Your task to perform on an android device: toggle show notifications on the lock screen Image 0: 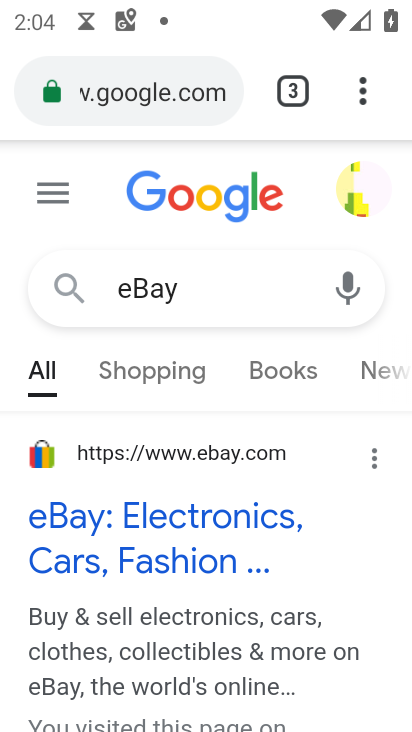
Step 0: press home button
Your task to perform on an android device: toggle show notifications on the lock screen Image 1: 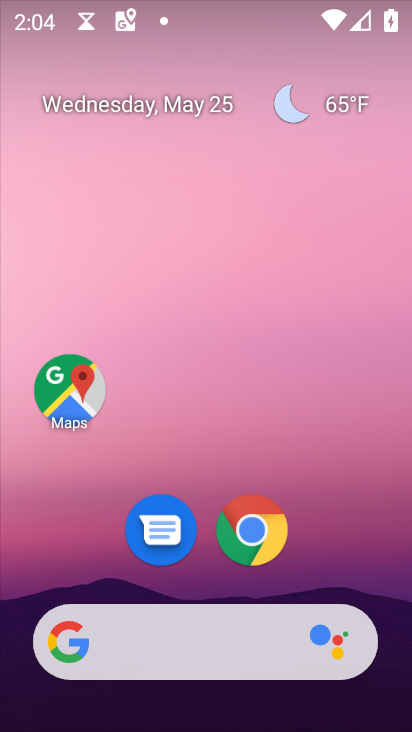
Step 1: drag from (288, 534) to (300, 225)
Your task to perform on an android device: toggle show notifications on the lock screen Image 2: 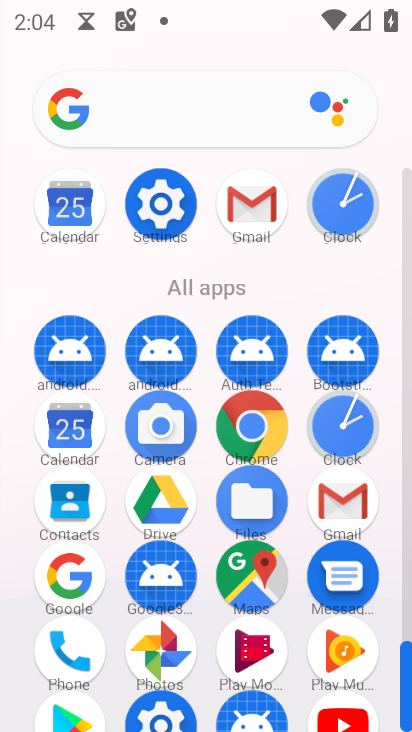
Step 2: click (150, 205)
Your task to perform on an android device: toggle show notifications on the lock screen Image 3: 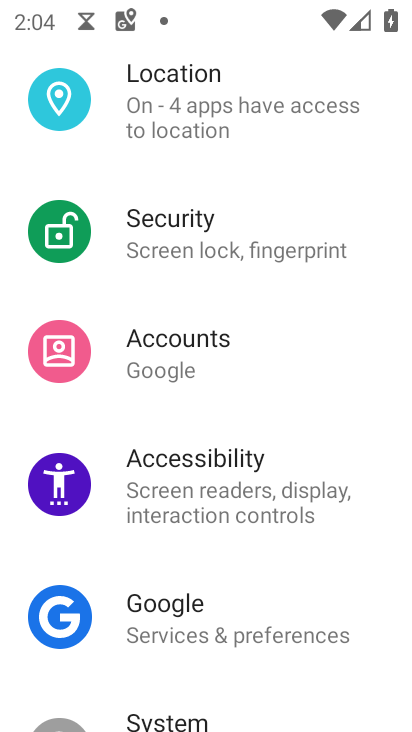
Step 3: drag from (260, 158) to (264, 483)
Your task to perform on an android device: toggle show notifications on the lock screen Image 4: 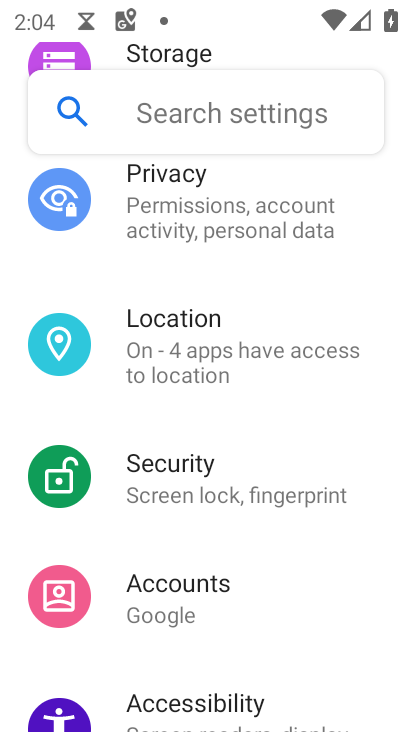
Step 4: drag from (243, 256) to (257, 481)
Your task to perform on an android device: toggle show notifications on the lock screen Image 5: 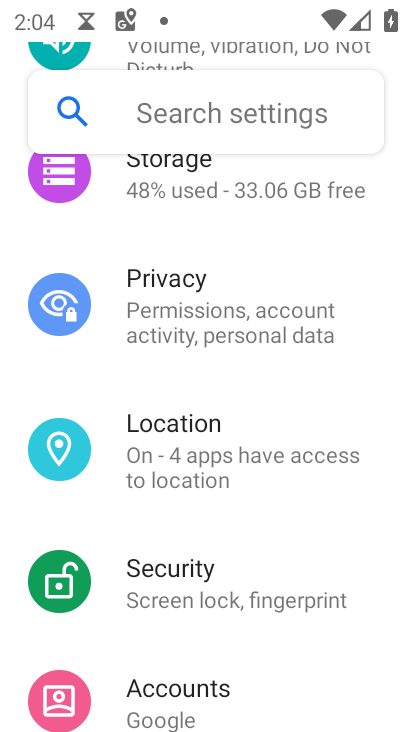
Step 5: click (213, 113)
Your task to perform on an android device: toggle show notifications on the lock screen Image 6: 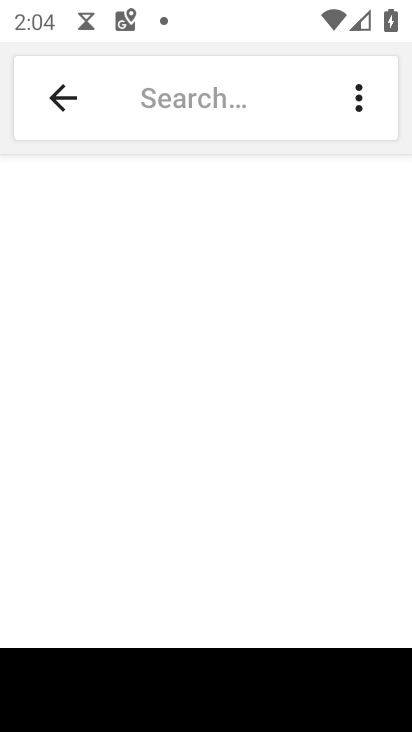
Step 6: drag from (197, 308) to (250, 598)
Your task to perform on an android device: toggle show notifications on the lock screen Image 7: 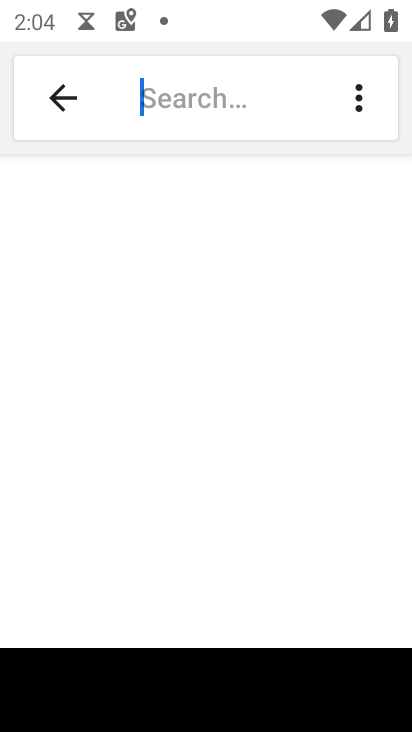
Step 7: drag from (227, 363) to (235, 608)
Your task to perform on an android device: toggle show notifications on the lock screen Image 8: 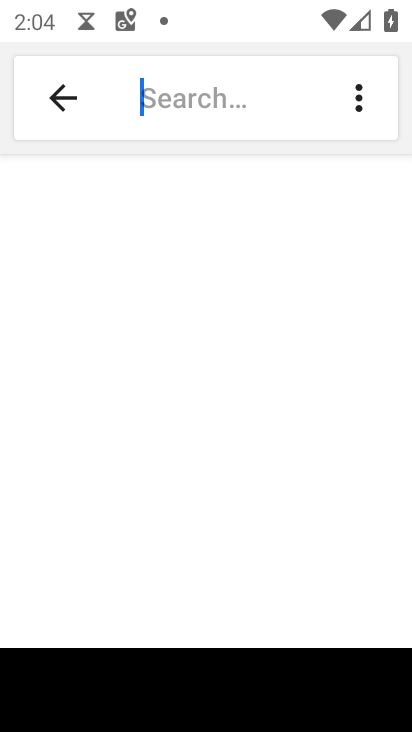
Step 8: drag from (232, 557) to (235, 601)
Your task to perform on an android device: toggle show notifications on the lock screen Image 9: 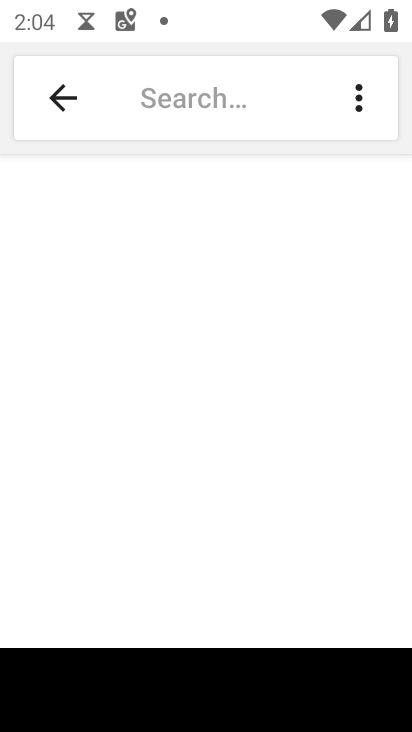
Step 9: drag from (221, 450) to (217, 635)
Your task to perform on an android device: toggle show notifications on the lock screen Image 10: 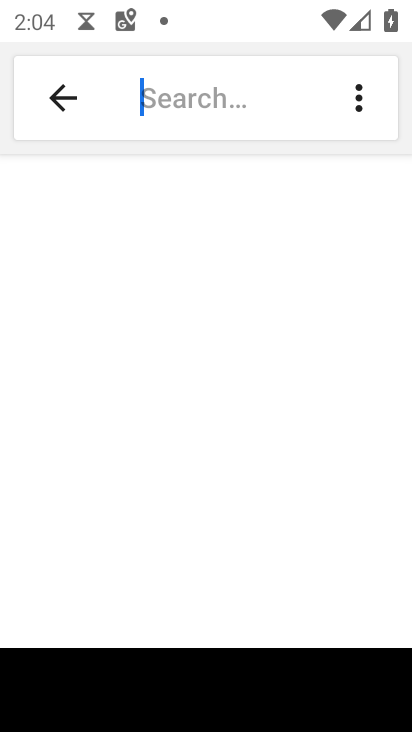
Step 10: click (183, 102)
Your task to perform on an android device: toggle show notifications on the lock screen Image 11: 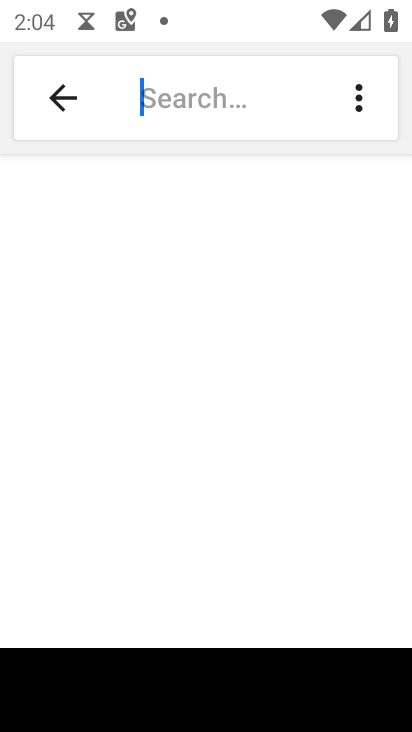
Step 11: type "notification"
Your task to perform on an android device: toggle show notifications on the lock screen Image 12: 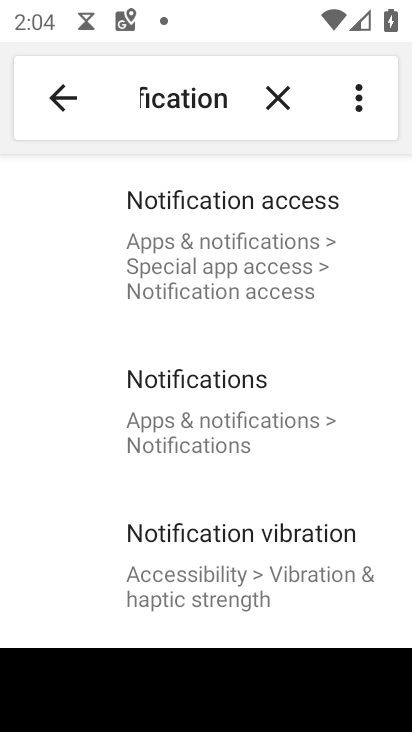
Step 12: click (187, 226)
Your task to perform on an android device: toggle show notifications on the lock screen Image 13: 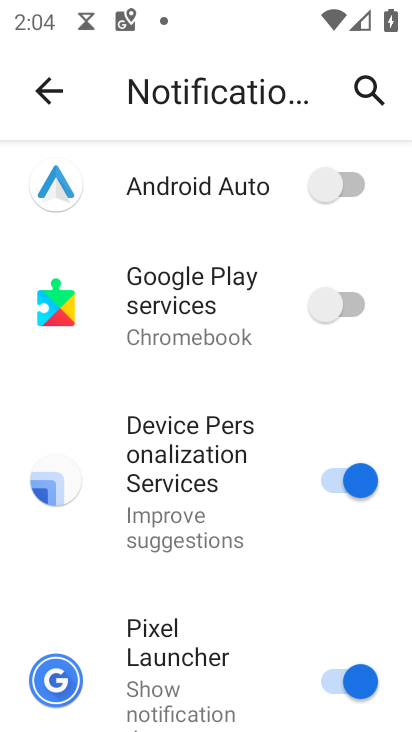
Step 13: click (66, 96)
Your task to perform on an android device: toggle show notifications on the lock screen Image 14: 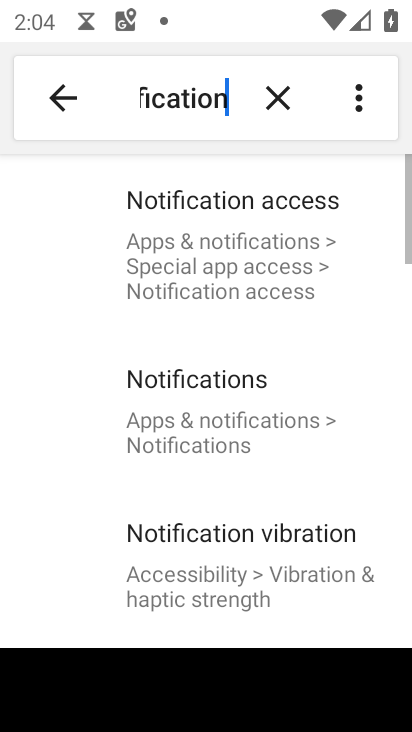
Step 14: click (188, 408)
Your task to perform on an android device: toggle show notifications on the lock screen Image 15: 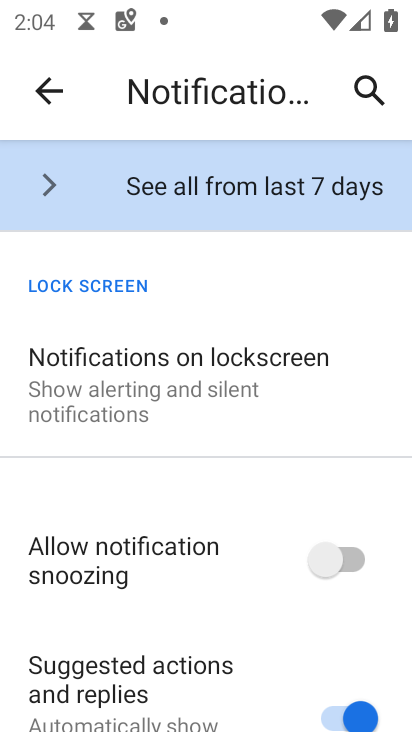
Step 15: click (185, 386)
Your task to perform on an android device: toggle show notifications on the lock screen Image 16: 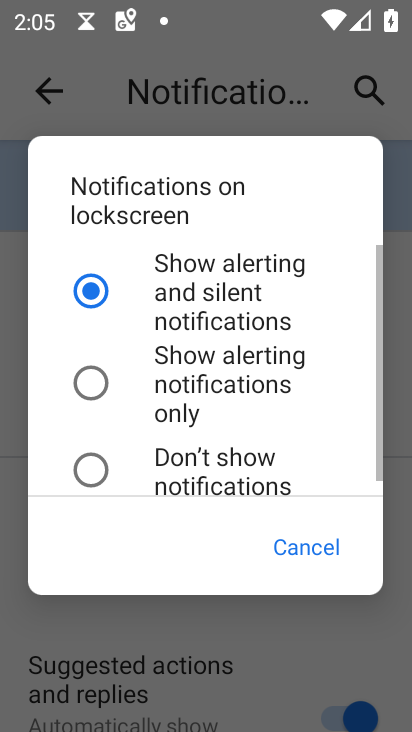
Step 16: click (143, 449)
Your task to perform on an android device: toggle show notifications on the lock screen Image 17: 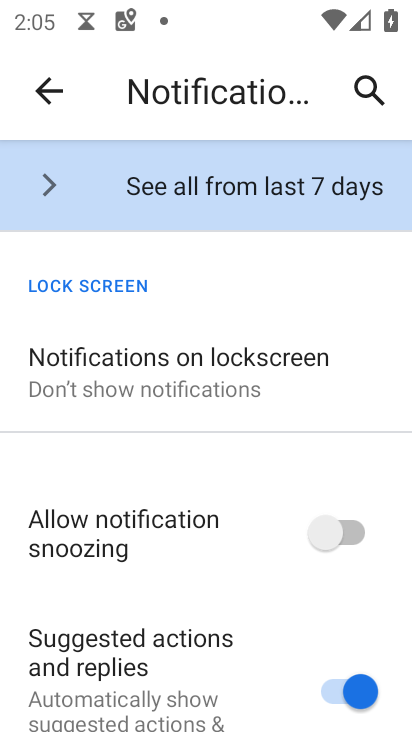
Step 17: task complete